Your task to perform on an android device: What's the weather going to be this weekend? Image 0: 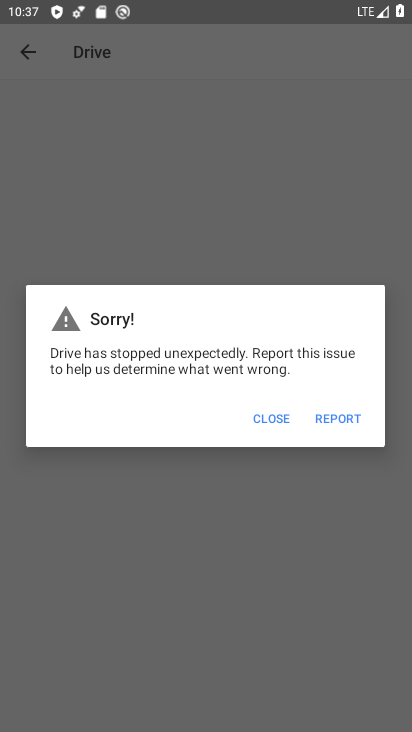
Step 0: press home button
Your task to perform on an android device: What's the weather going to be this weekend? Image 1: 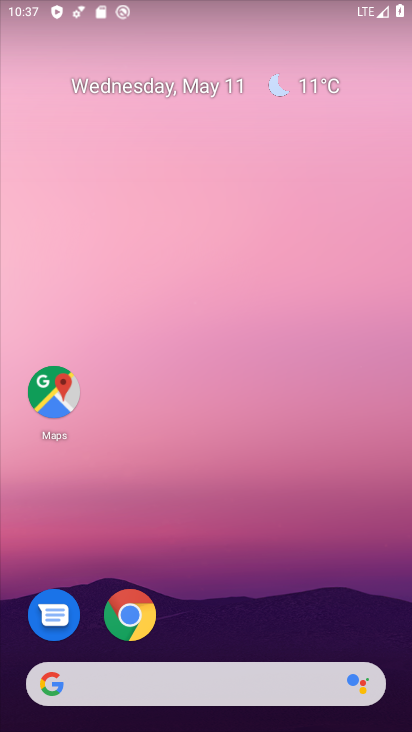
Step 1: click (314, 89)
Your task to perform on an android device: What's the weather going to be this weekend? Image 2: 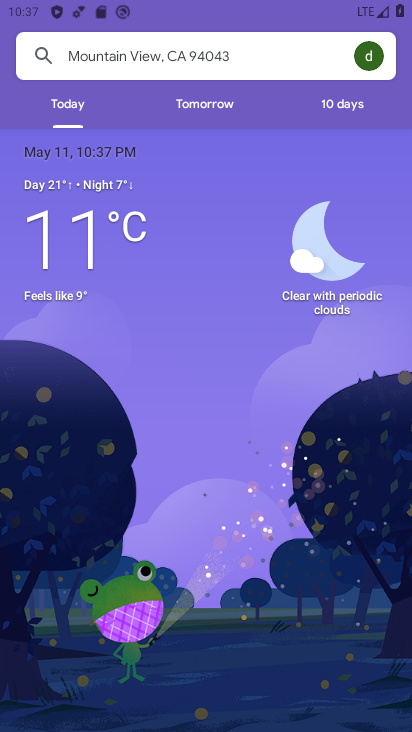
Step 2: click (331, 105)
Your task to perform on an android device: What's the weather going to be this weekend? Image 3: 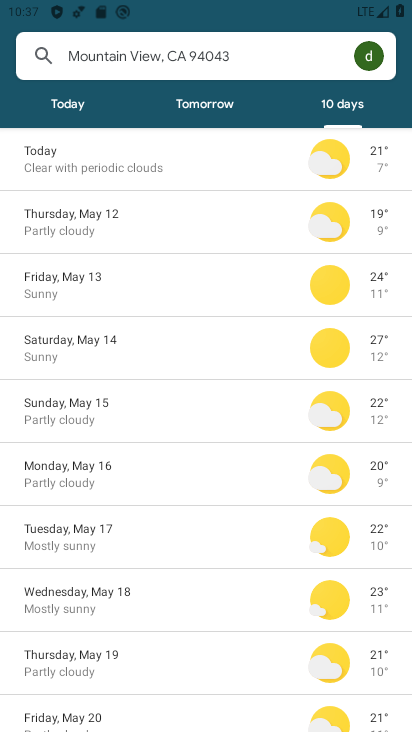
Step 3: task complete